Your task to perform on an android device: read, delete, or share a saved page in the chrome app Image 0: 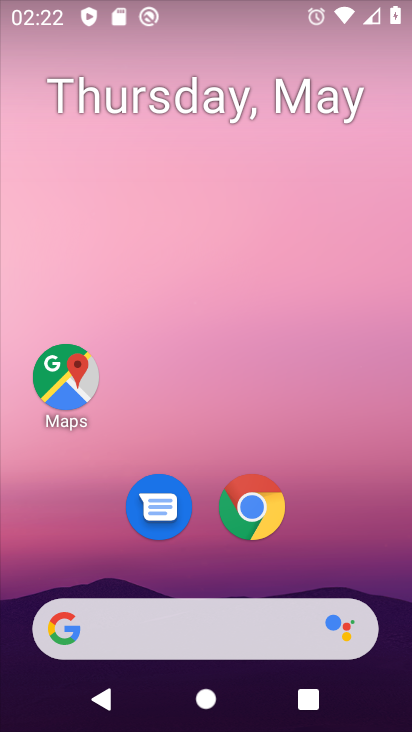
Step 0: click (267, 488)
Your task to perform on an android device: read, delete, or share a saved page in the chrome app Image 1: 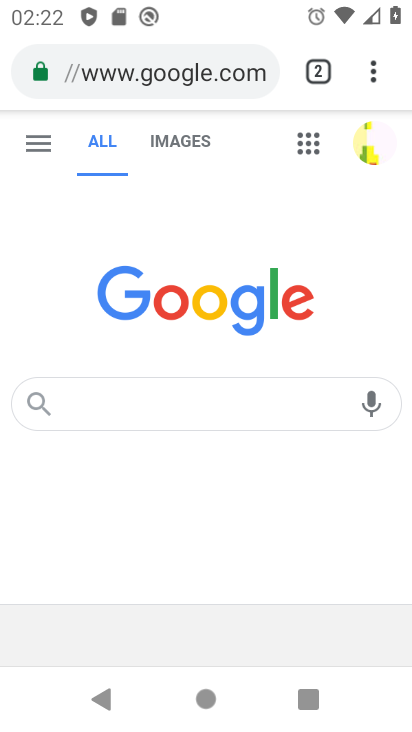
Step 1: click (374, 73)
Your task to perform on an android device: read, delete, or share a saved page in the chrome app Image 2: 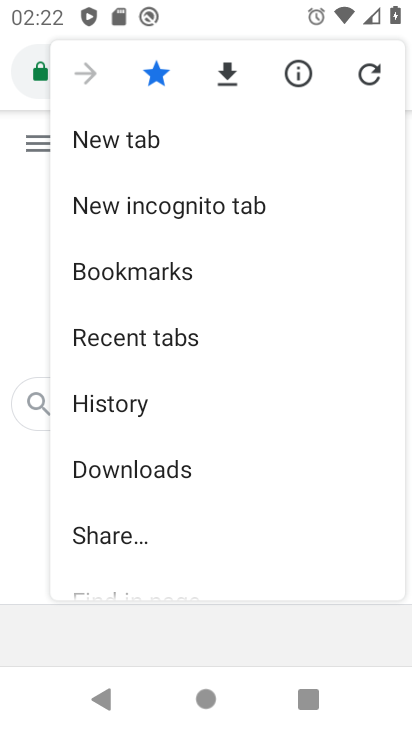
Step 2: click (211, 465)
Your task to perform on an android device: read, delete, or share a saved page in the chrome app Image 3: 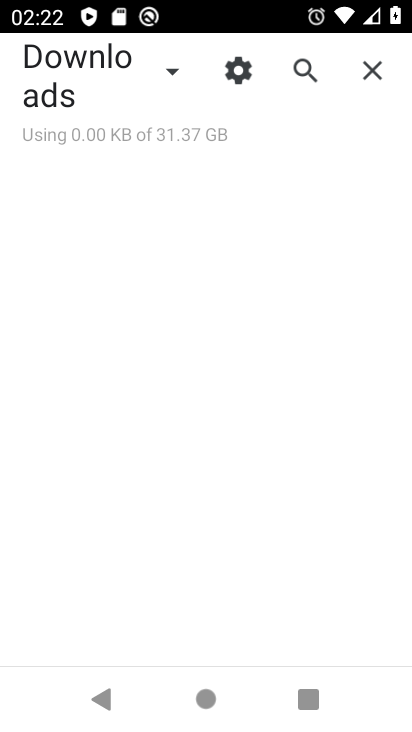
Step 3: task complete